Your task to perform on an android device: Go to Reddit.com Image 0: 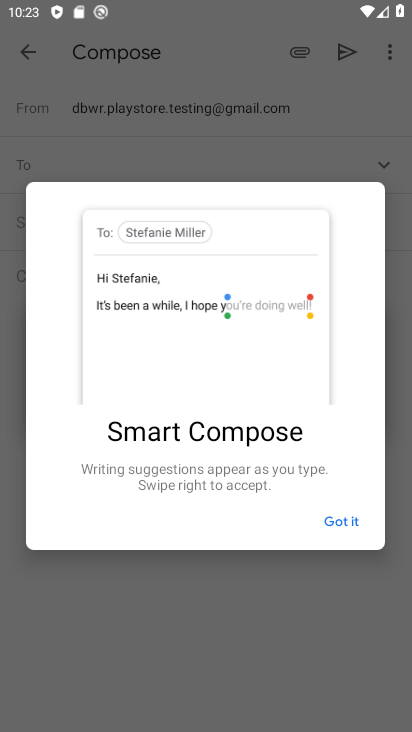
Step 0: press home button
Your task to perform on an android device: Go to Reddit.com Image 1: 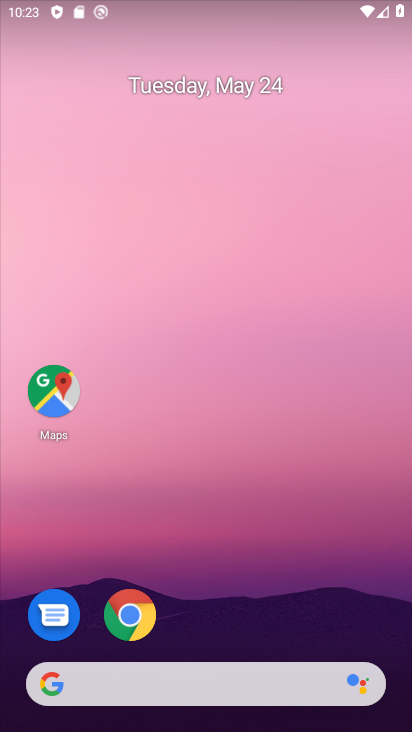
Step 1: click (127, 597)
Your task to perform on an android device: Go to Reddit.com Image 2: 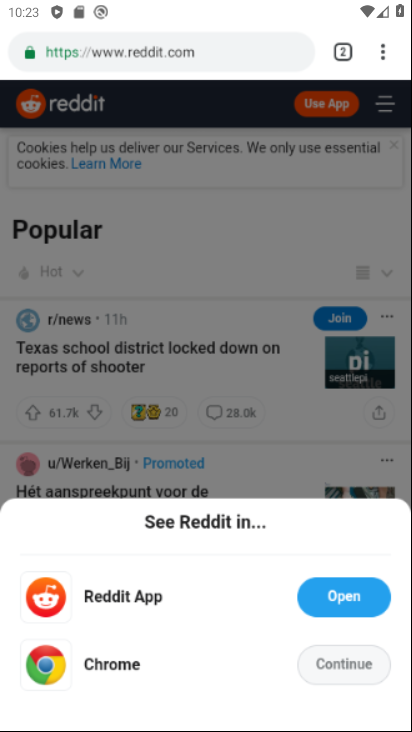
Step 2: click (140, 604)
Your task to perform on an android device: Go to Reddit.com Image 3: 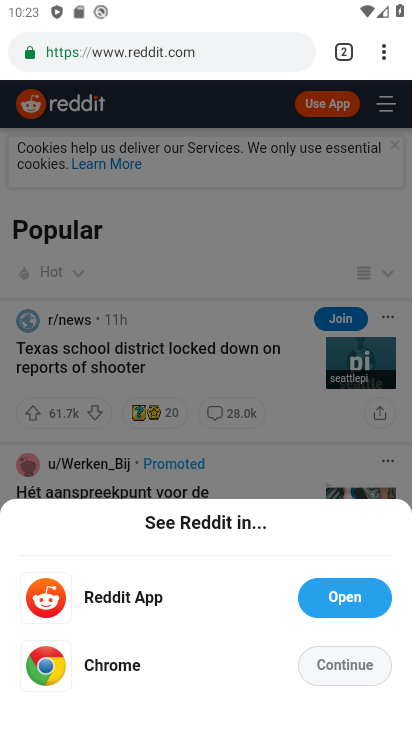
Step 3: click (183, 362)
Your task to perform on an android device: Go to Reddit.com Image 4: 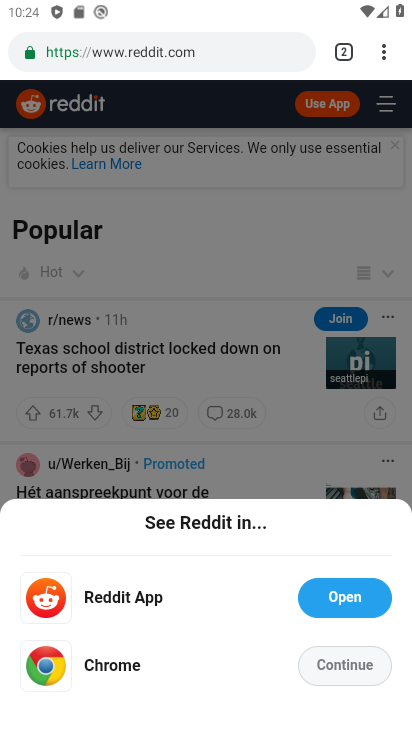
Step 4: click (226, 381)
Your task to perform on an android device: Go to Reddit.com Image 5: 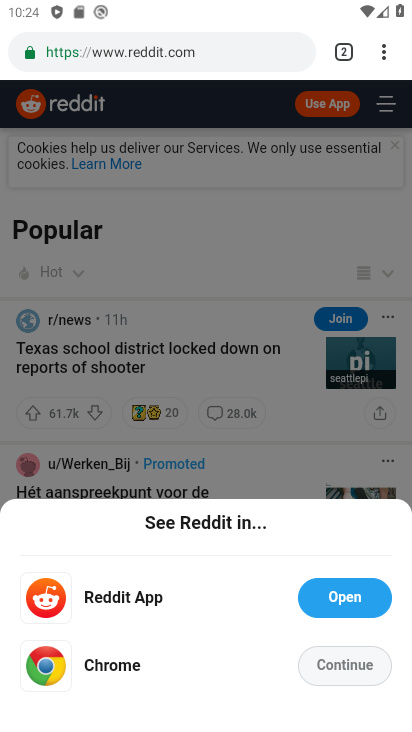
Step 5: task complete